Your task to perform on an android device: Go to display settings Image 0: 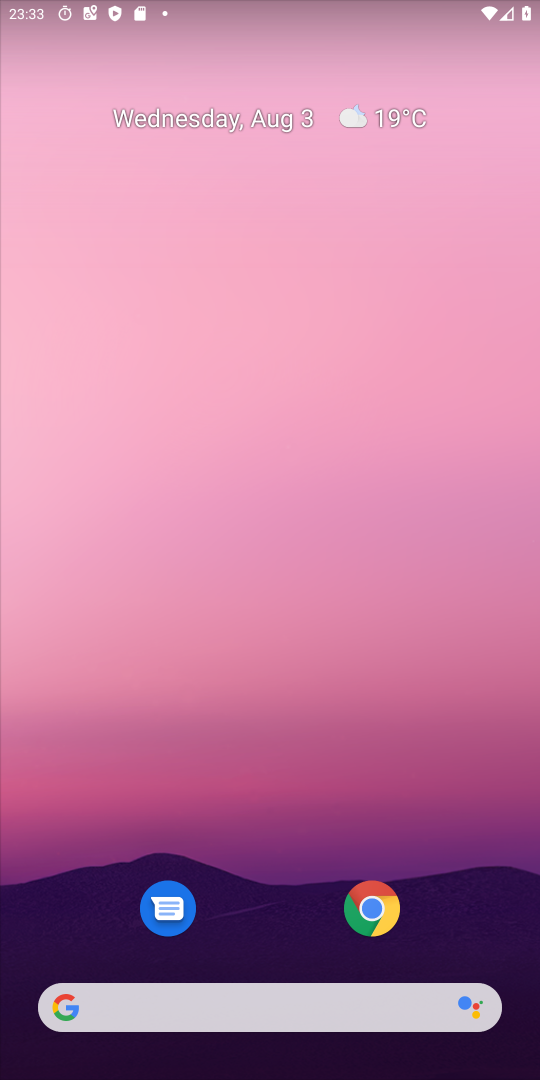
Step 0: press home button
Your task to perform on an android device: Go to display settings Image 1: 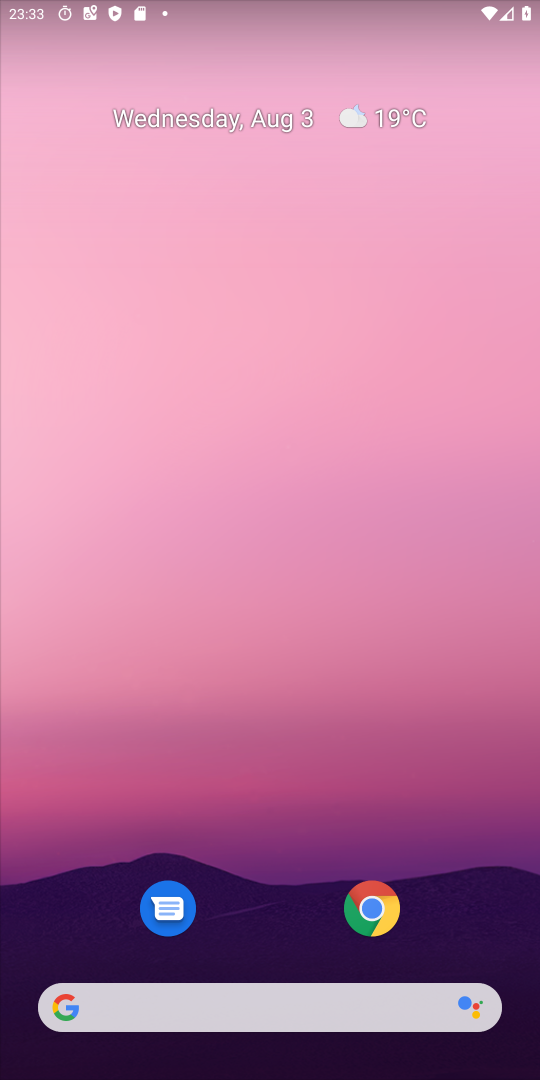
Step 1: drag from (328, 934) to (137, 387)
Your task to perform on an android device: Go to display settings Image 2: 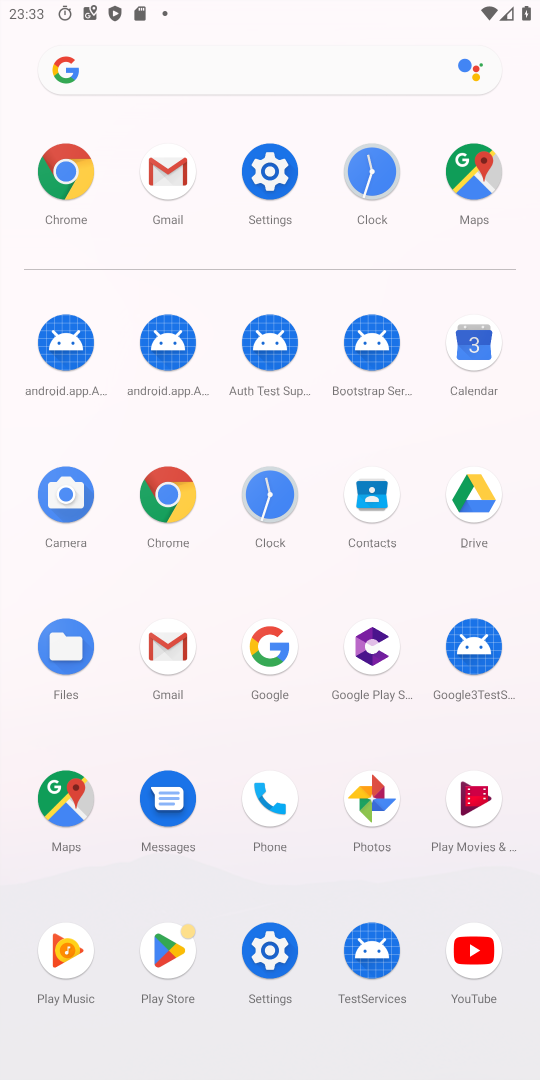
Step 2: click (266, 173)
Your task to perform on an android device: Go to display settings Image 3: 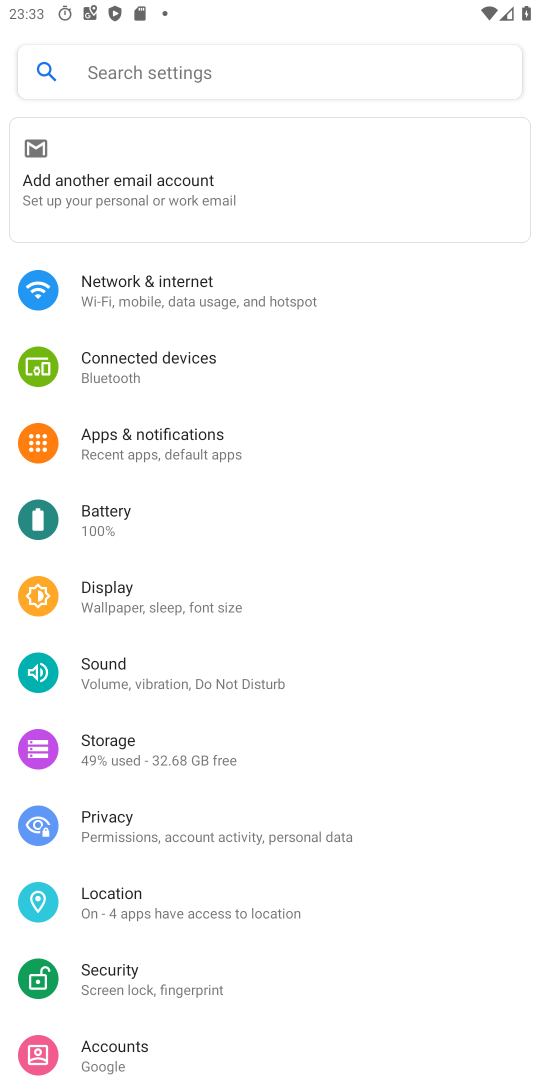
Step 3: click (141, 581)
Your task to perform on an android device: Go to display settings Image 4: 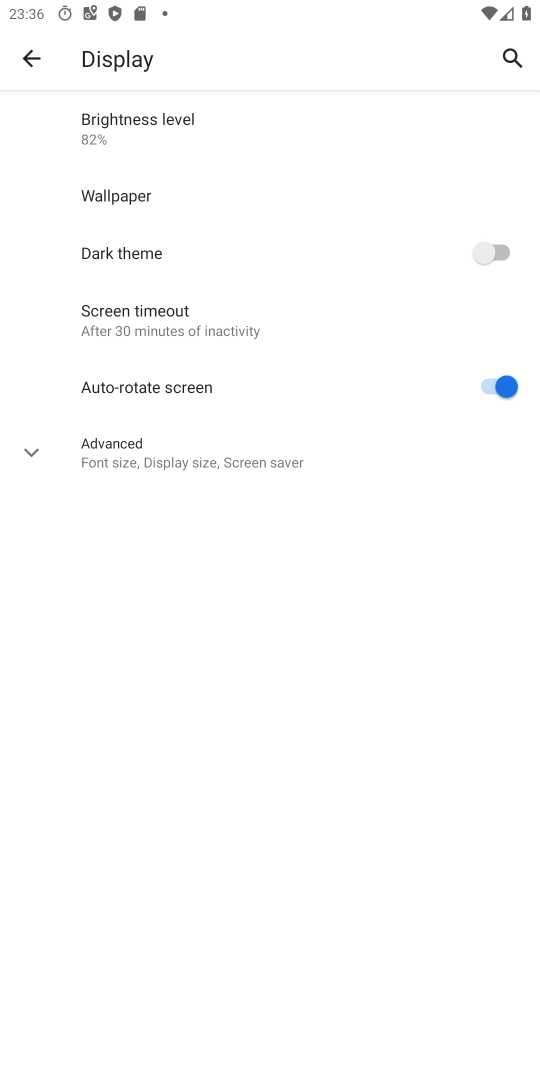
Step 4: task complete